Your task to perform on an android device: Toggle the flashlight Image 0: 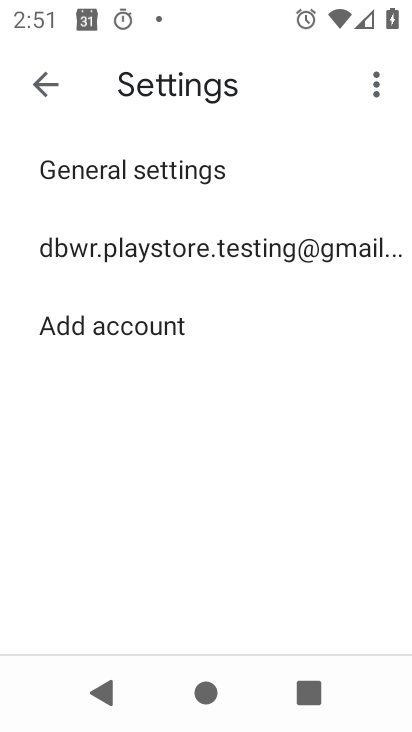
Step 0: press home button
Your task to perform on an android device: Toggle the flashlight Image 1: 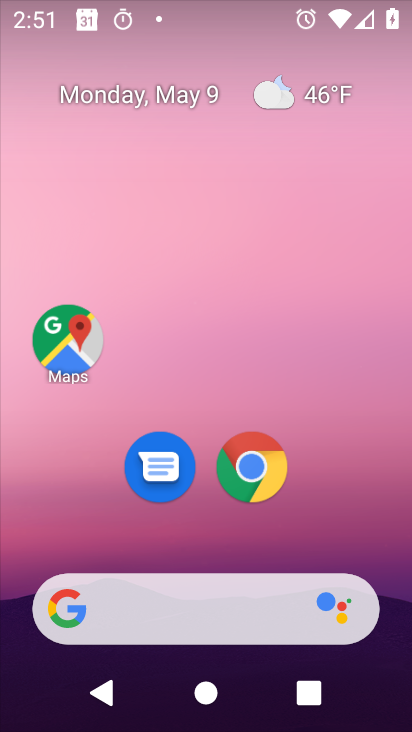
Step 1: task complete